Your task to perform on an android device: check out phone information Image 0: 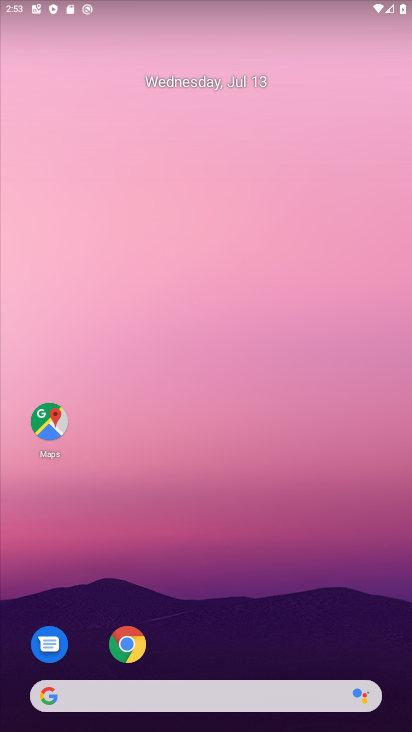
Step 0: drag from (271, 227) to (310, 45)
Your task to perform on an android device: check out phone information Image 1: 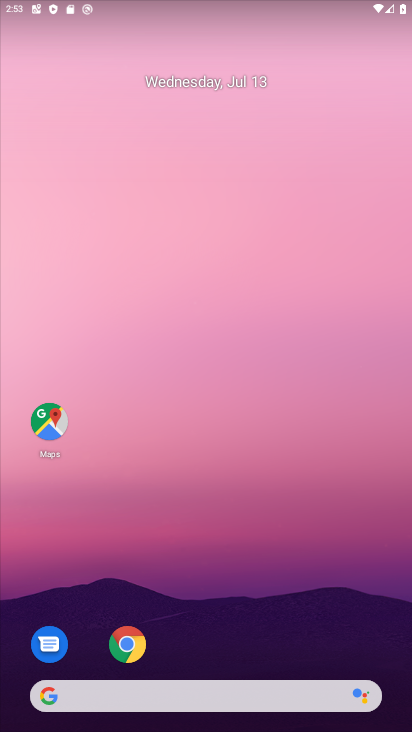
Step 1: drag from (286, 661) to (317, 189)
Your task to perform on an android device: check out phone information Image 2: 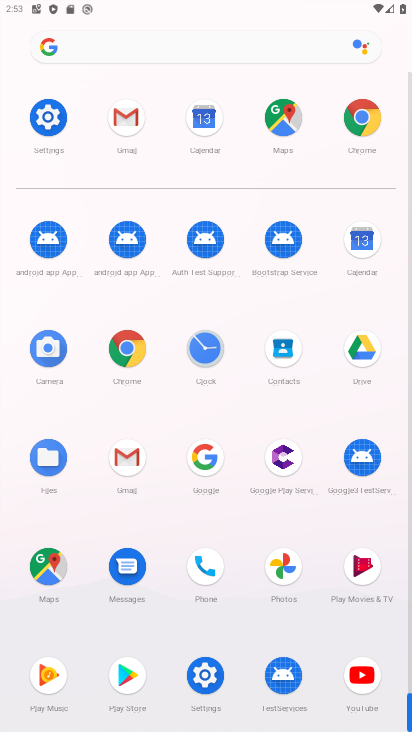
Step 2: click (198, 568)
Your task to perform on an android device: check out phone information Image 3: 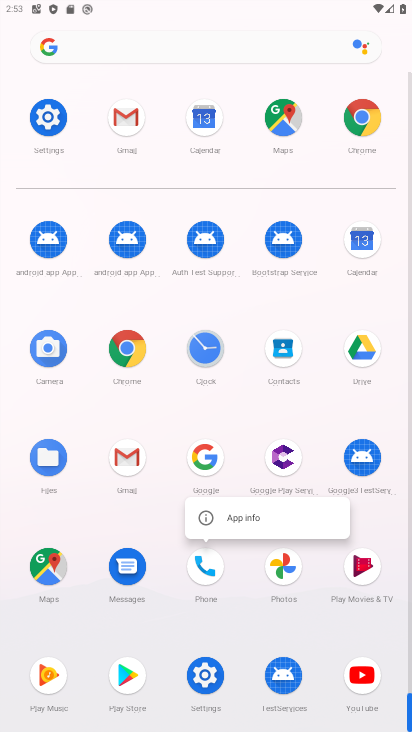
Step 3: click (241, 511)
Your task to perform on an android device: check out phone information Image 4: 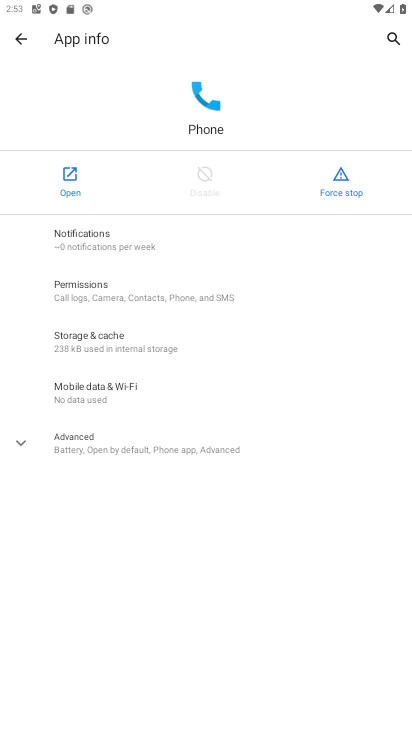
Step 4: click (170, 467)
Your task to perform on an android device: check out phone information Image 5: 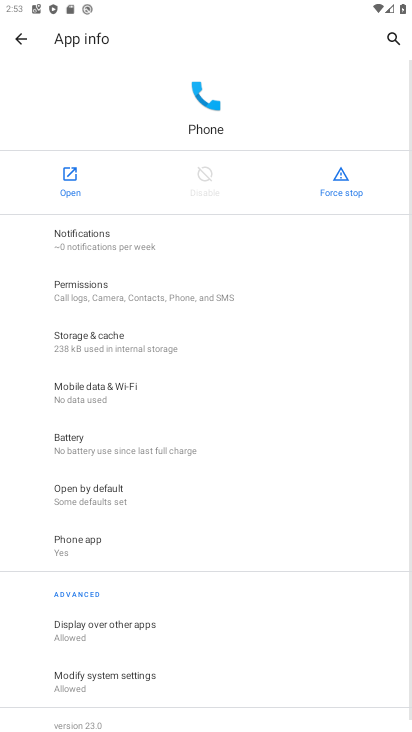
Step 5: task complete